Your task to perform on an android device: Check the settings for the Instagram app Image 0: 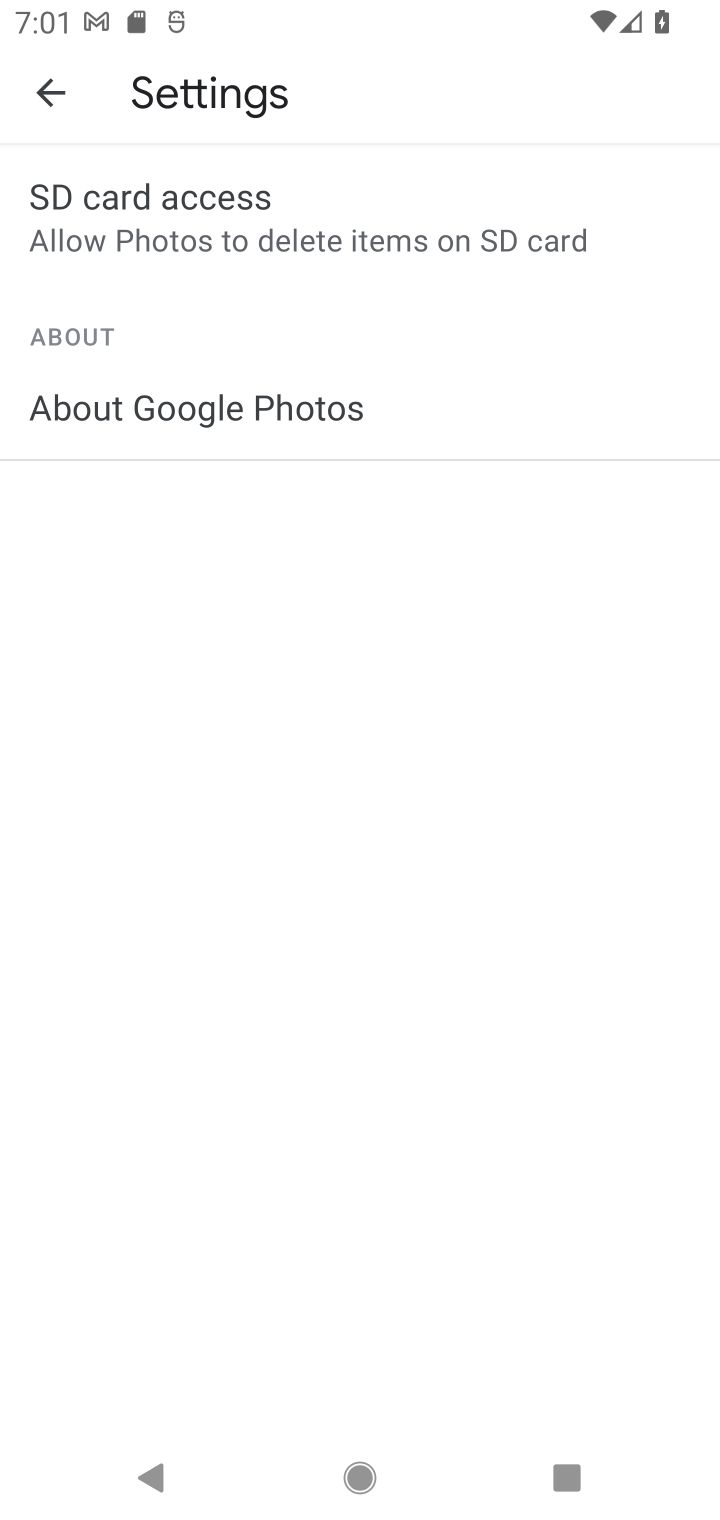
Step 0: press home button
Your task to perform on an android device: Check the settings for the Instagram app Image 1: 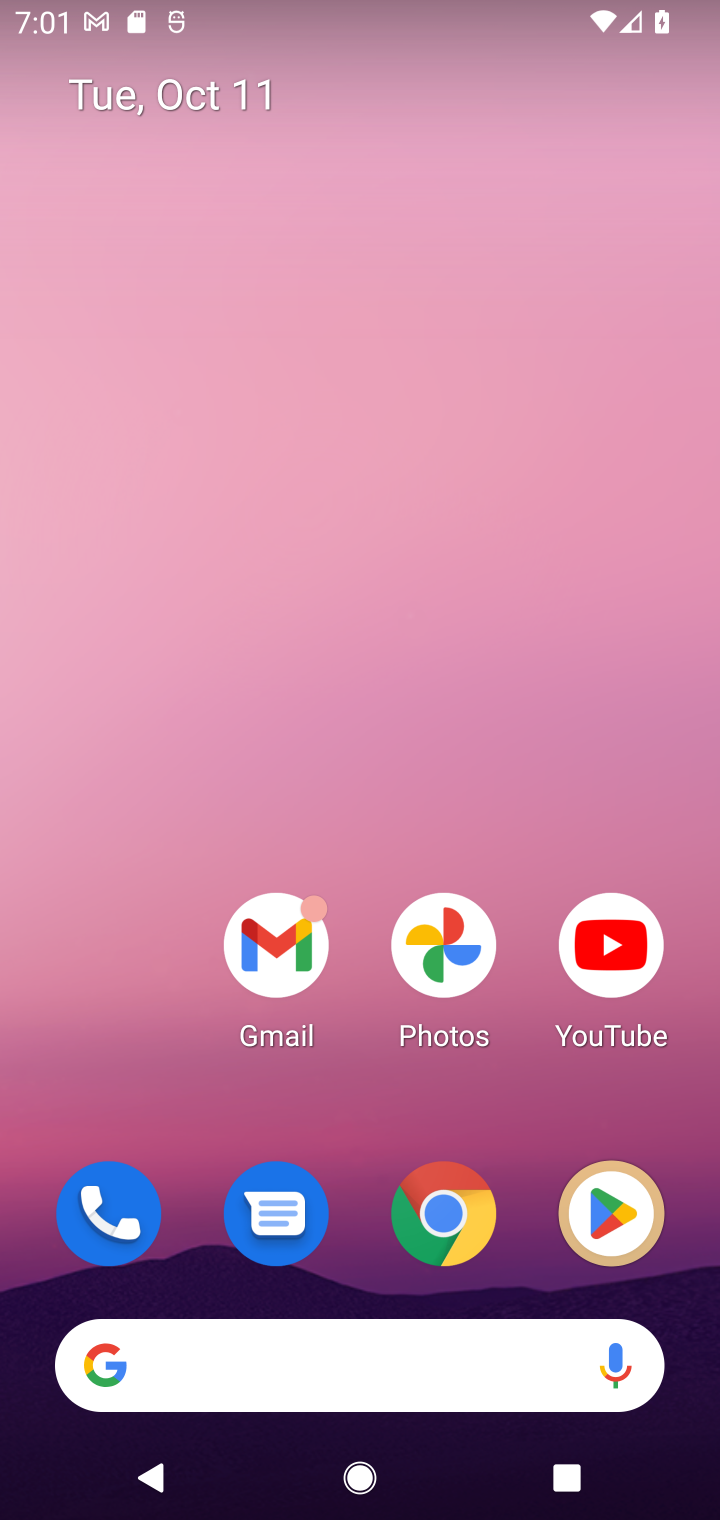
Step 1: drag from (344, 711) to (344, 408)
Your task to perform on an android device: Check the settings for the Instagram app Image 2: 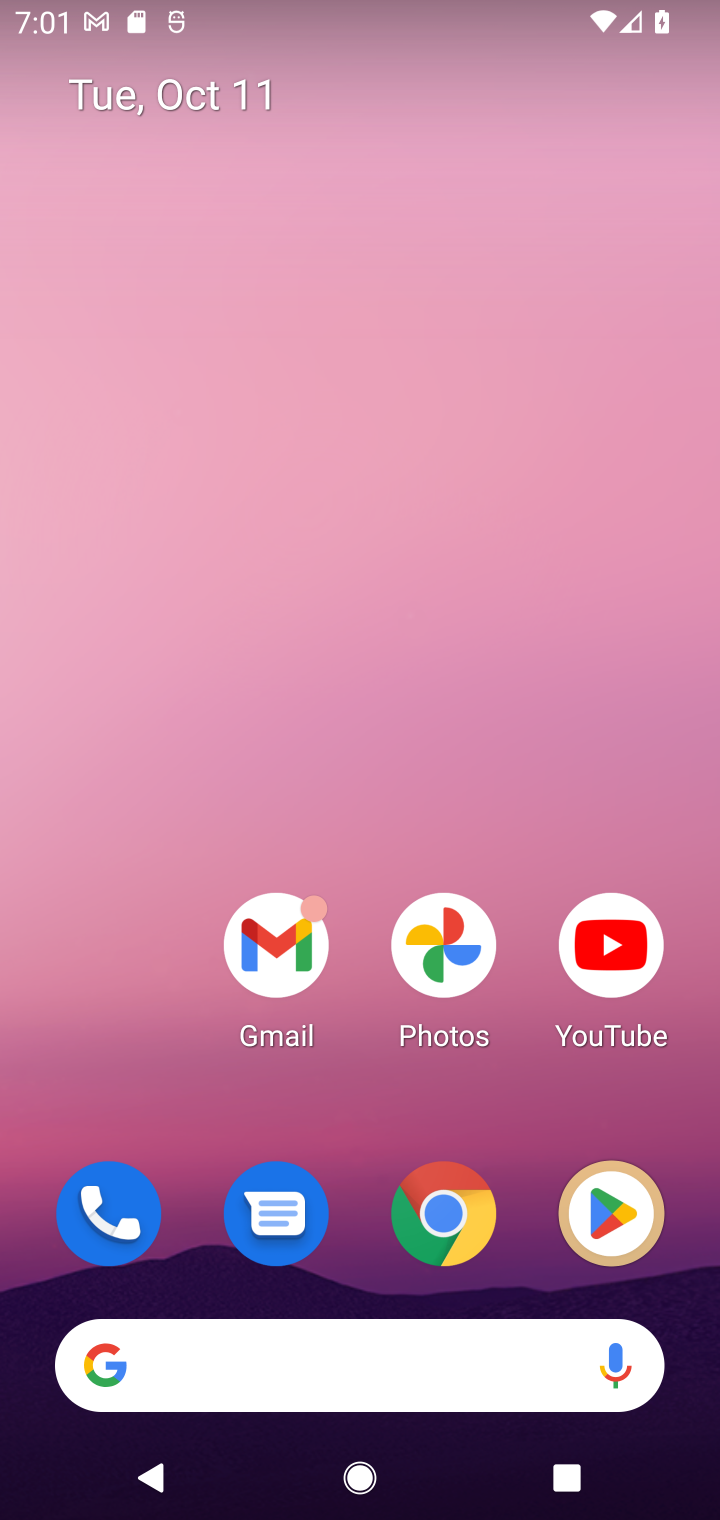
Step 2: drag from (392, 452) to (385, 341)
Your task to perform on an android device: Check the settings for the Instagram app Image 3: 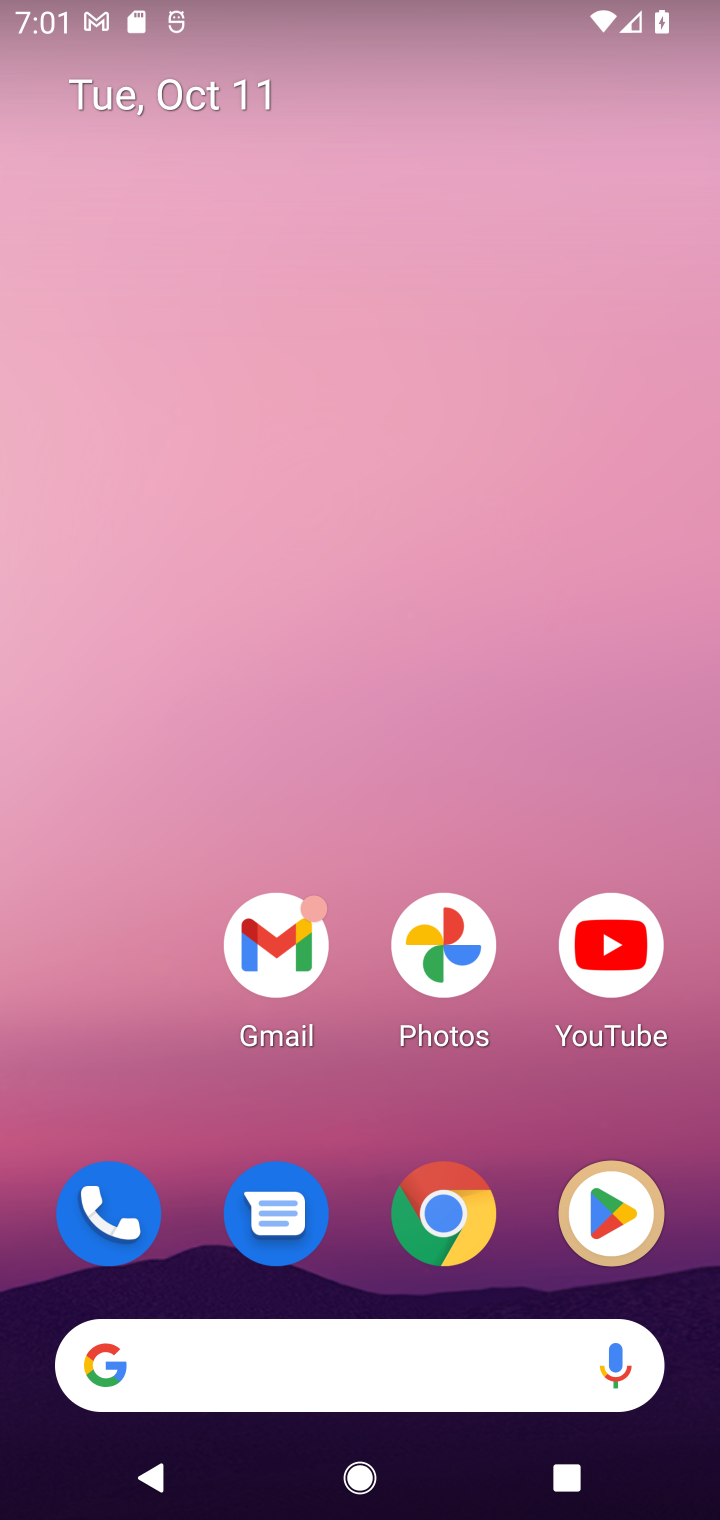
Step 3: drag from (338, 1026) to (420, 182)
Your task to perform on an android device: Check the settings for the Instagram app Image 4: 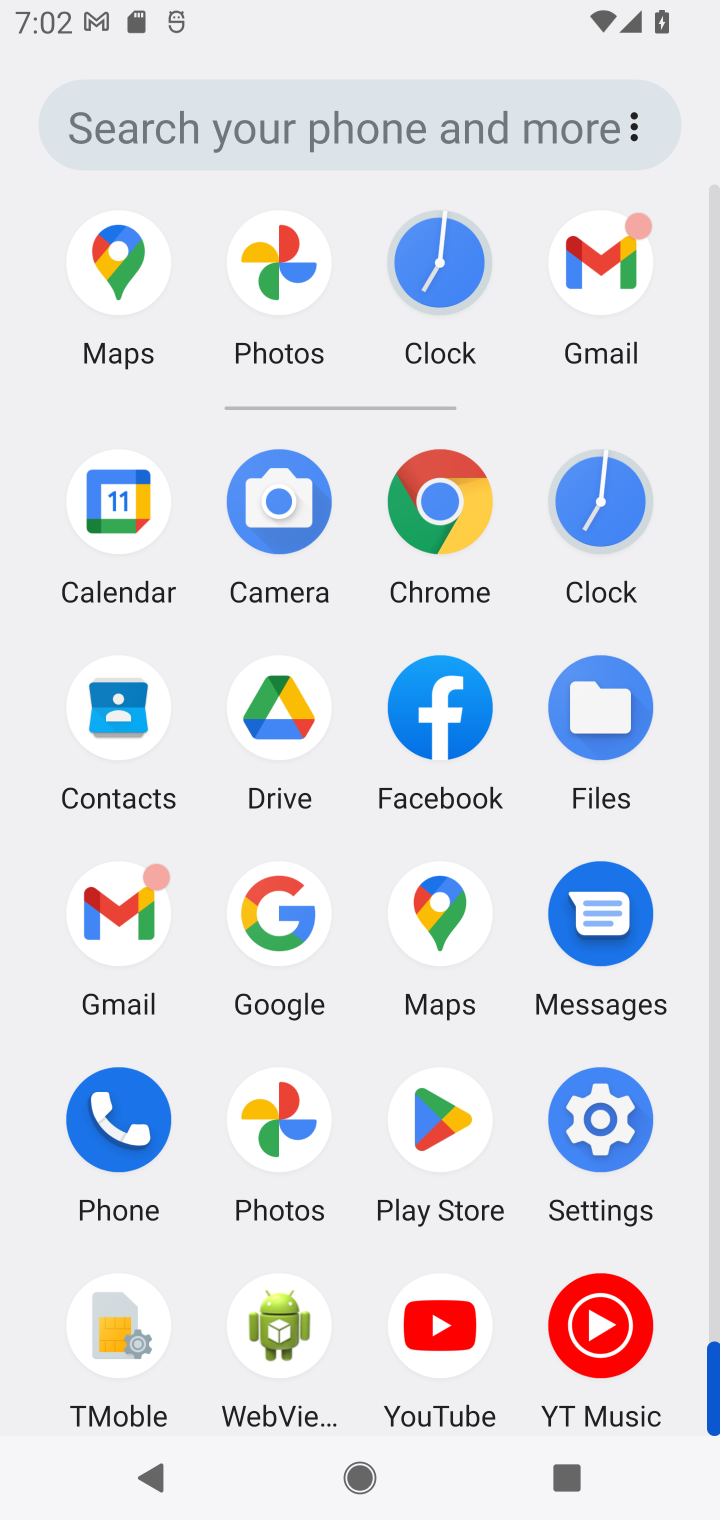
Step 4: drag from (257, 1209) to (281, 745)
Your task to perform on an android device: Check the settings for the Instagram app Image 5: 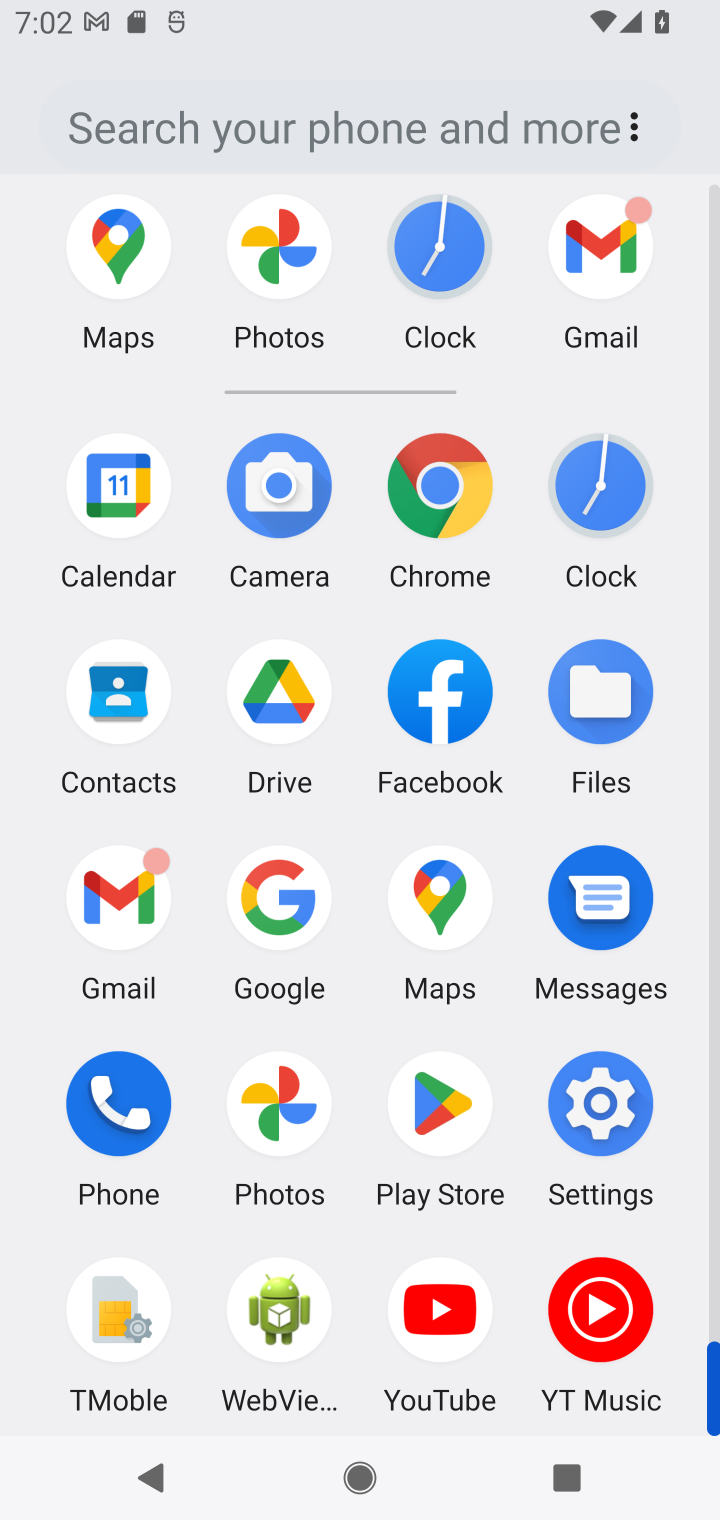
Step 5: drag from (149, 1257) to (218, 424)
Your task to perform on an android device: Check the settings for the Instagram app Image 6: 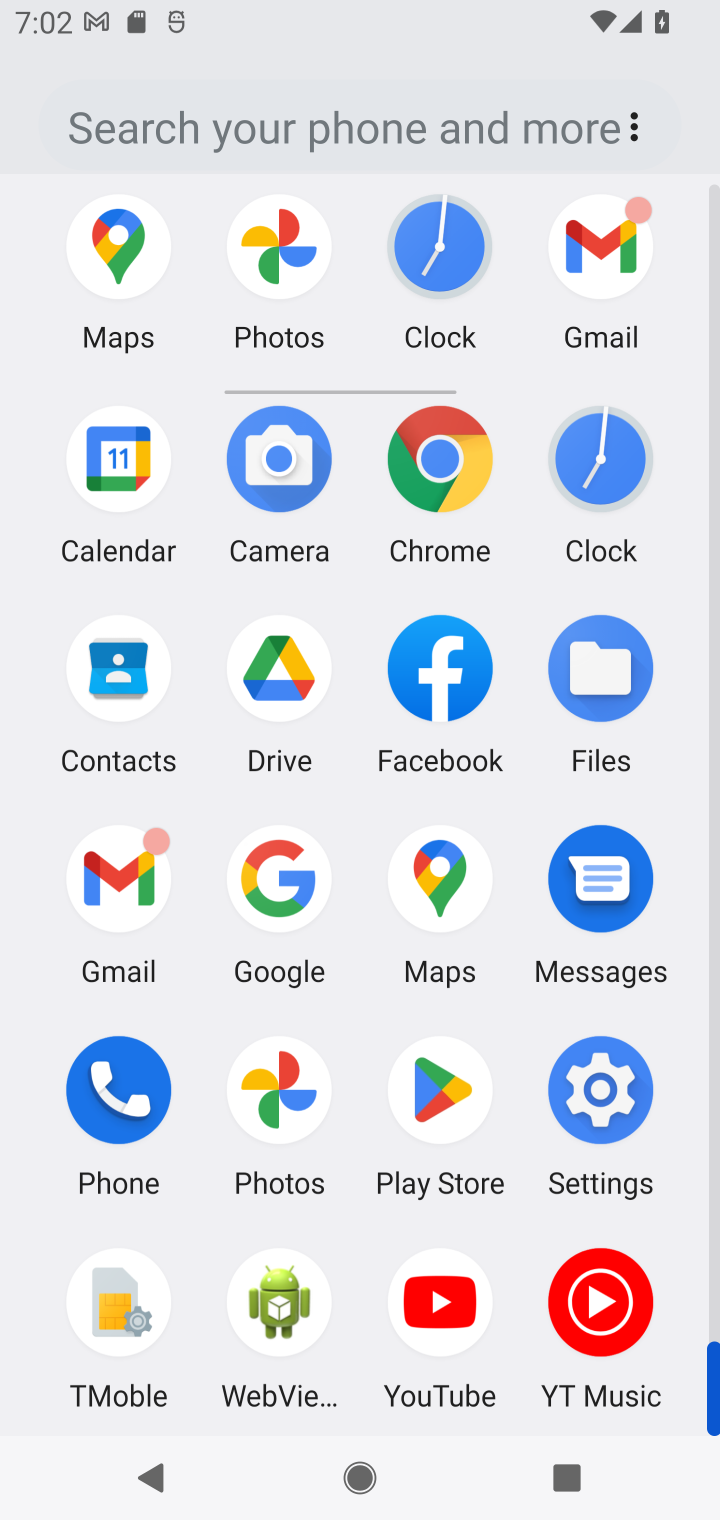
Step 6: drag from (205, 448) to (194, 1450)
Your task to perform on an android device: Check the settings for the Instagram app Image 7: 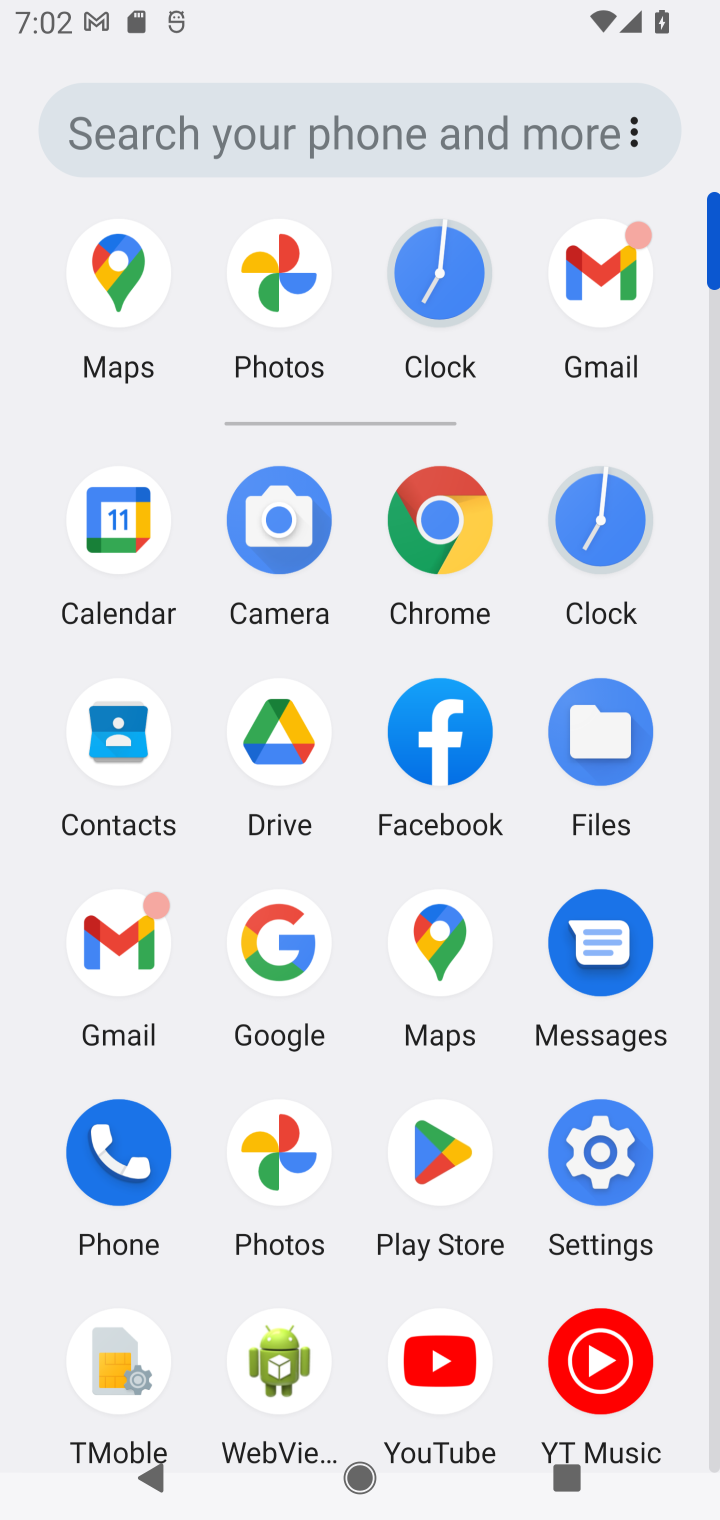
Step 7: click (232, 362)
Your task to perform on an android device: Check the settings for the Instagram app Image 8: 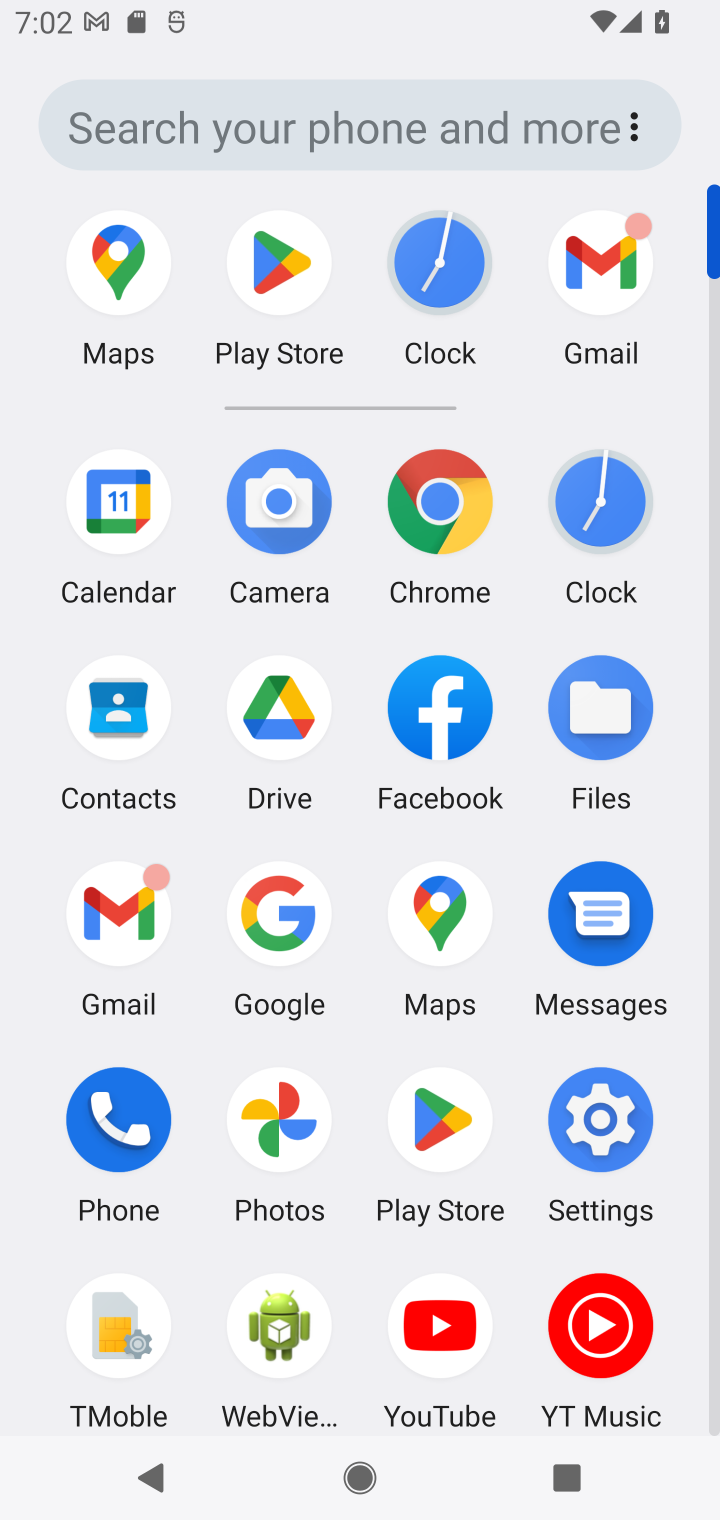
Step 8: click (454, 1100)
Your task to perform on an android device: Check the settings for the Instagram app Image 9: 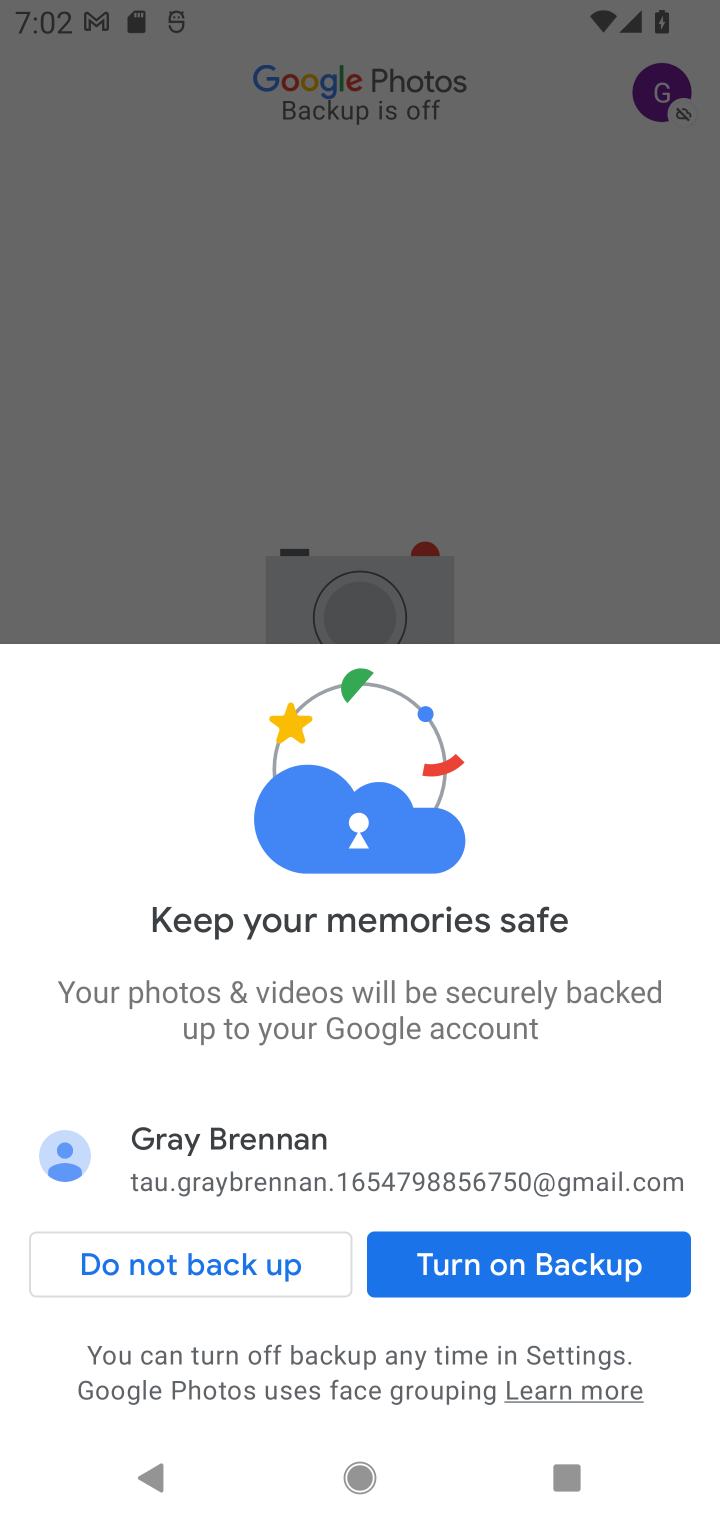
Step 9: press home button
Your task to perform on an android device: Check the settings for the Instagram app Image 10: 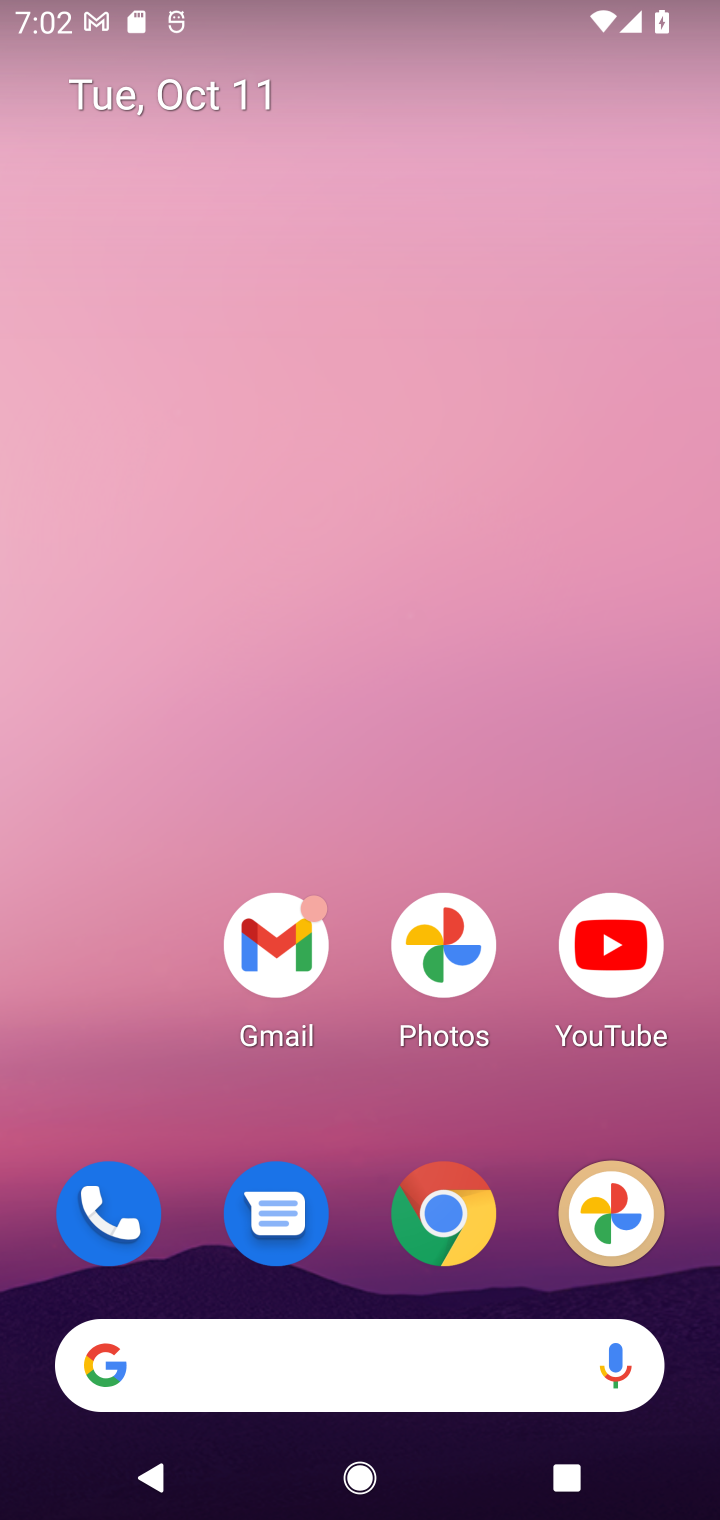
Step 10: drag from (288, 586) to (297, 280)
Your task to perform on an android device: Check the settings for the Instagram app Image 11: 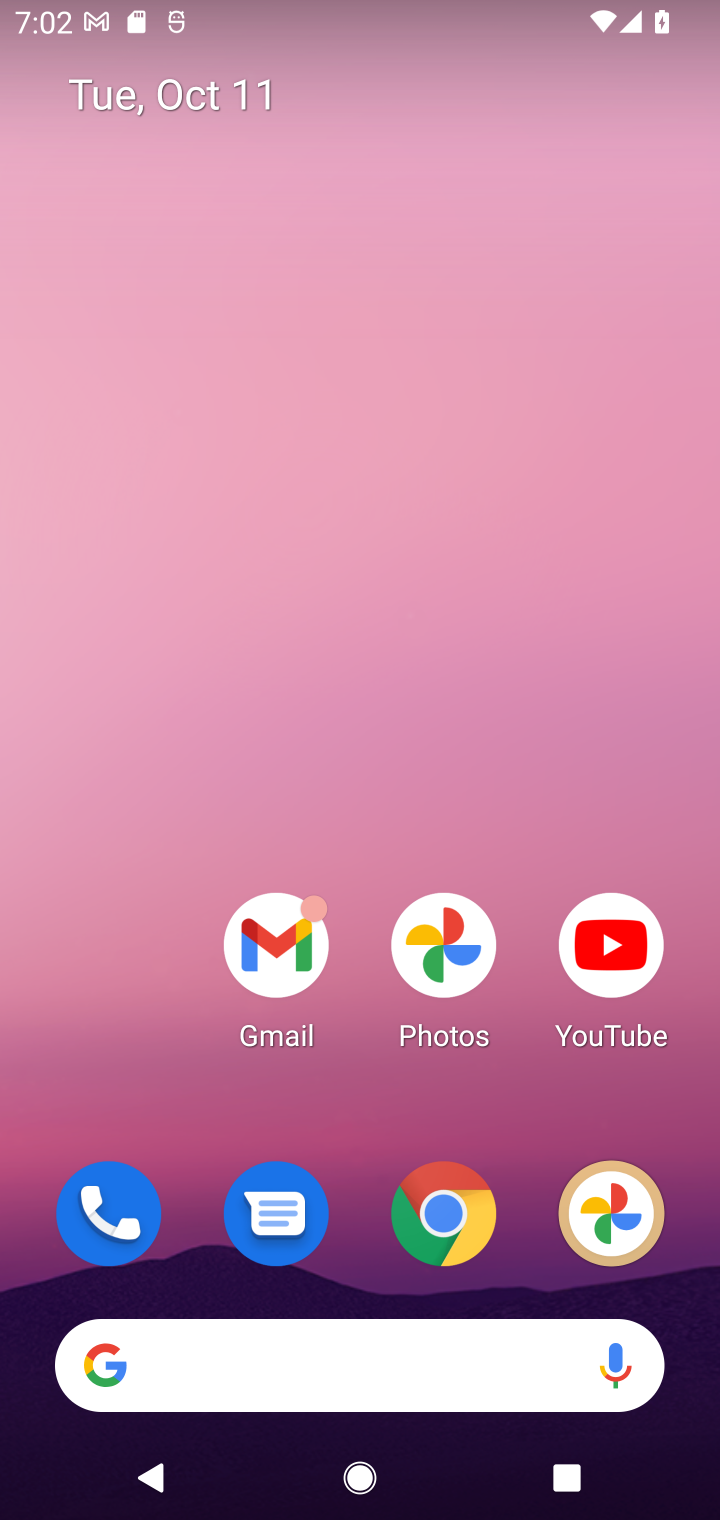
Step 11: drag from (362, 812) to (326, 260)
Your task to perform on an android device: Check the settings for the Instagram app Image 12: 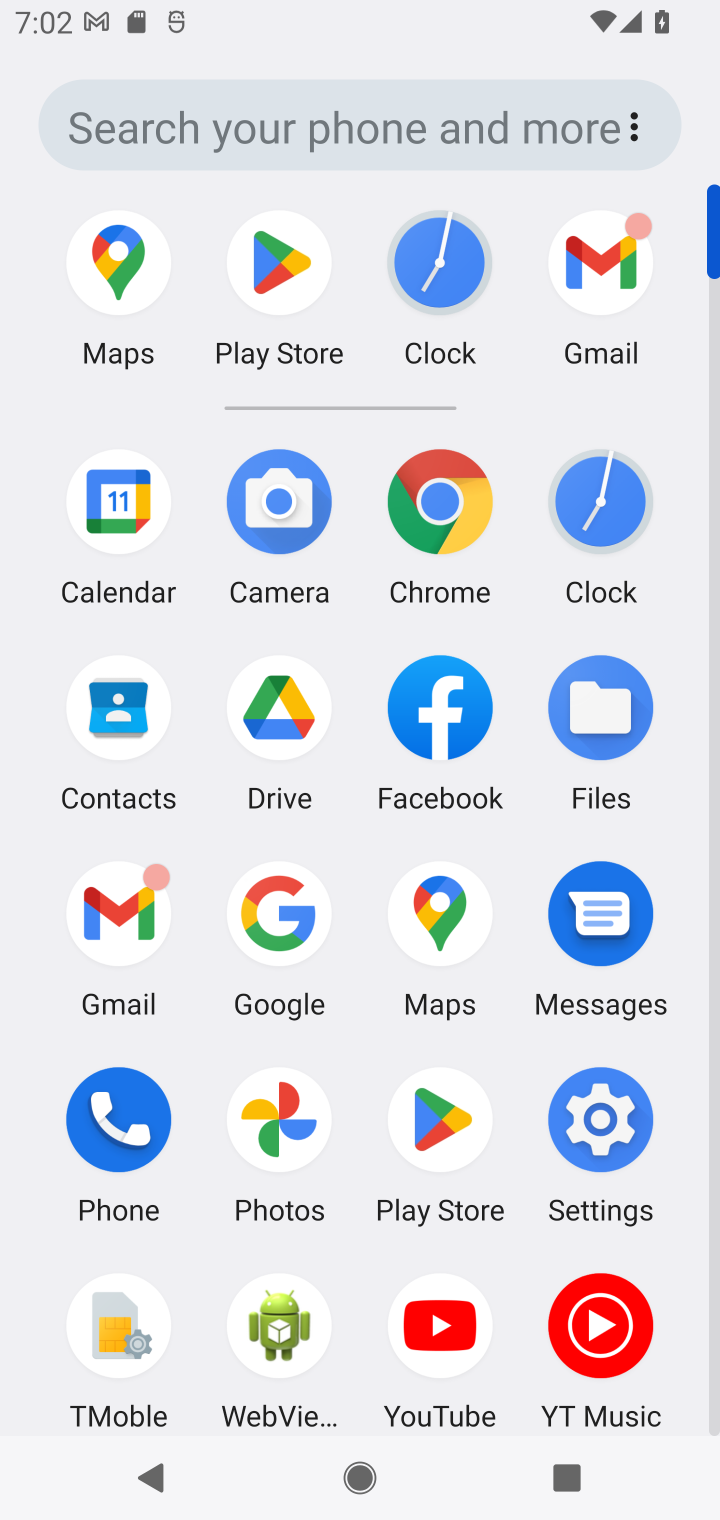
Step 12: click (453, 1103)
Your task to perform on an android device: Check the settings for the Instagram app Image 13: 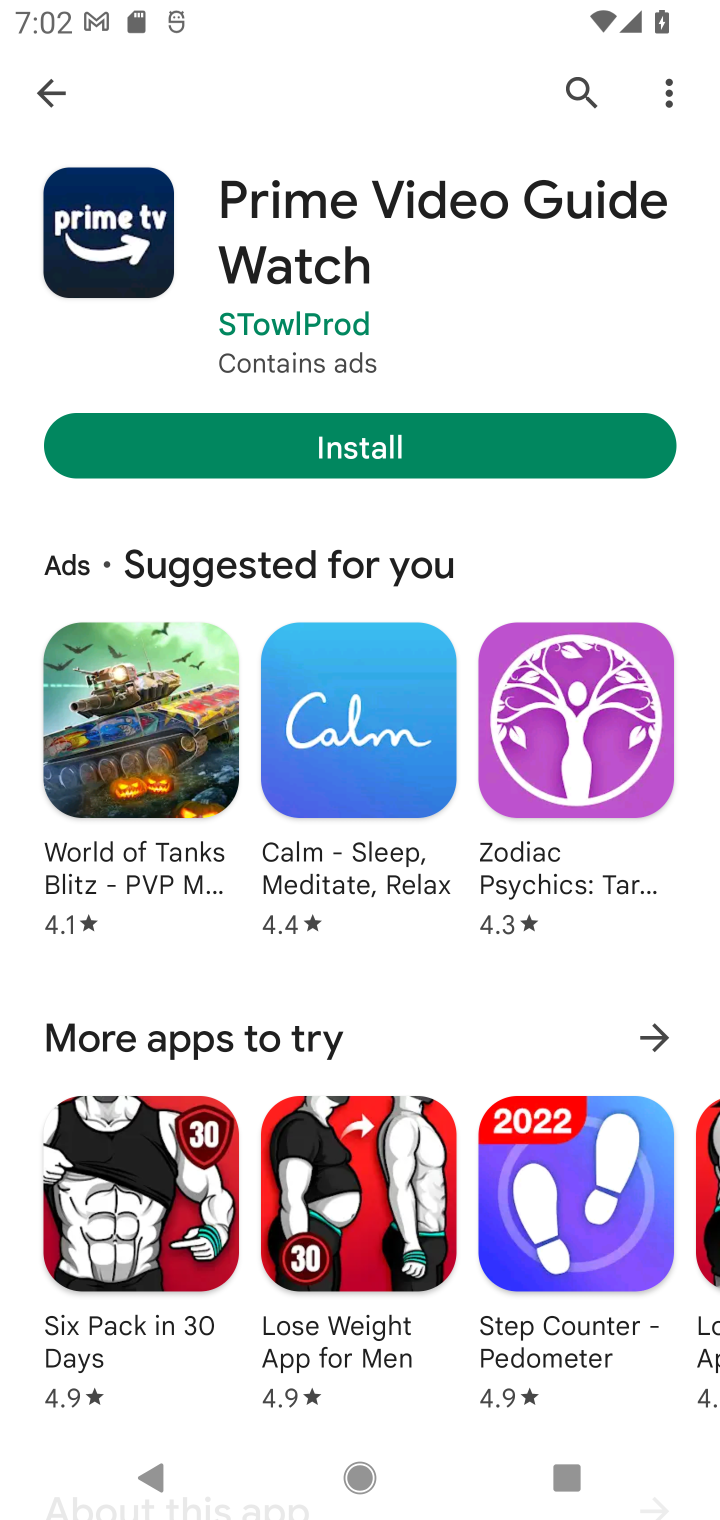
Step 13: click (27, 94)
Your task to perform on an android device: Check the settings for the Instagram app Image 14: 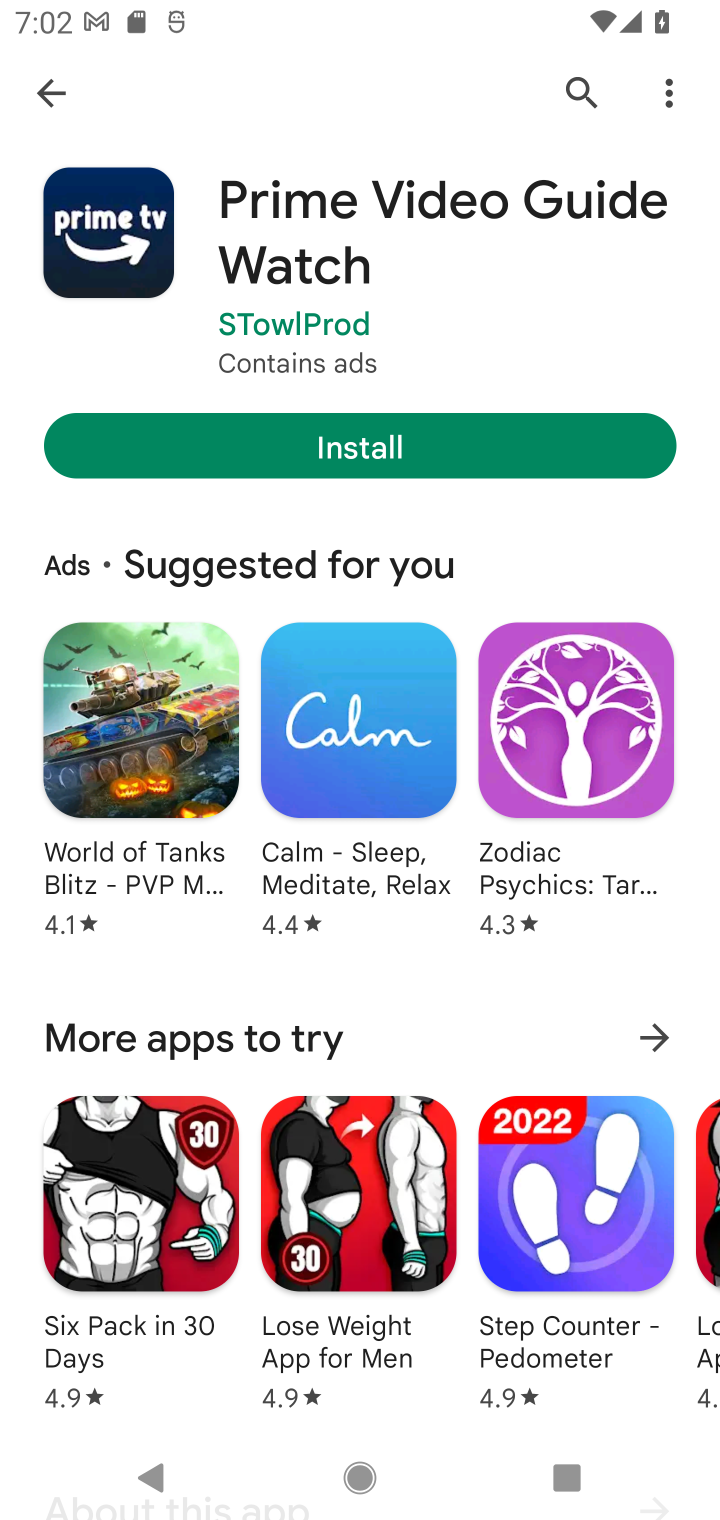
Step 14: click (54, 90)
Your task to perform on an android device: Check the settings for the Instagram app Image 15: 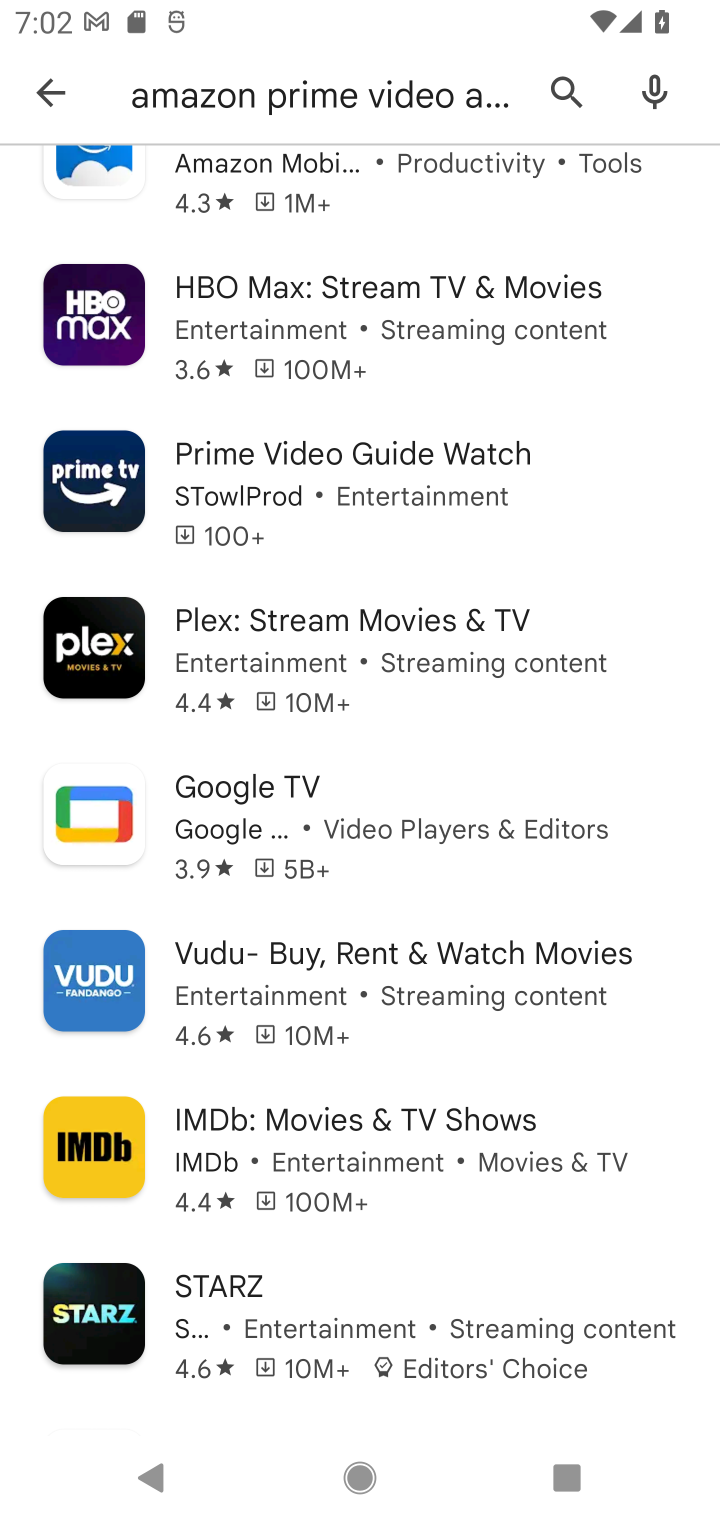
Step 15: click (555, 80)
Your task to perform on an android device: Check the settings for the Instagram app Image 16: 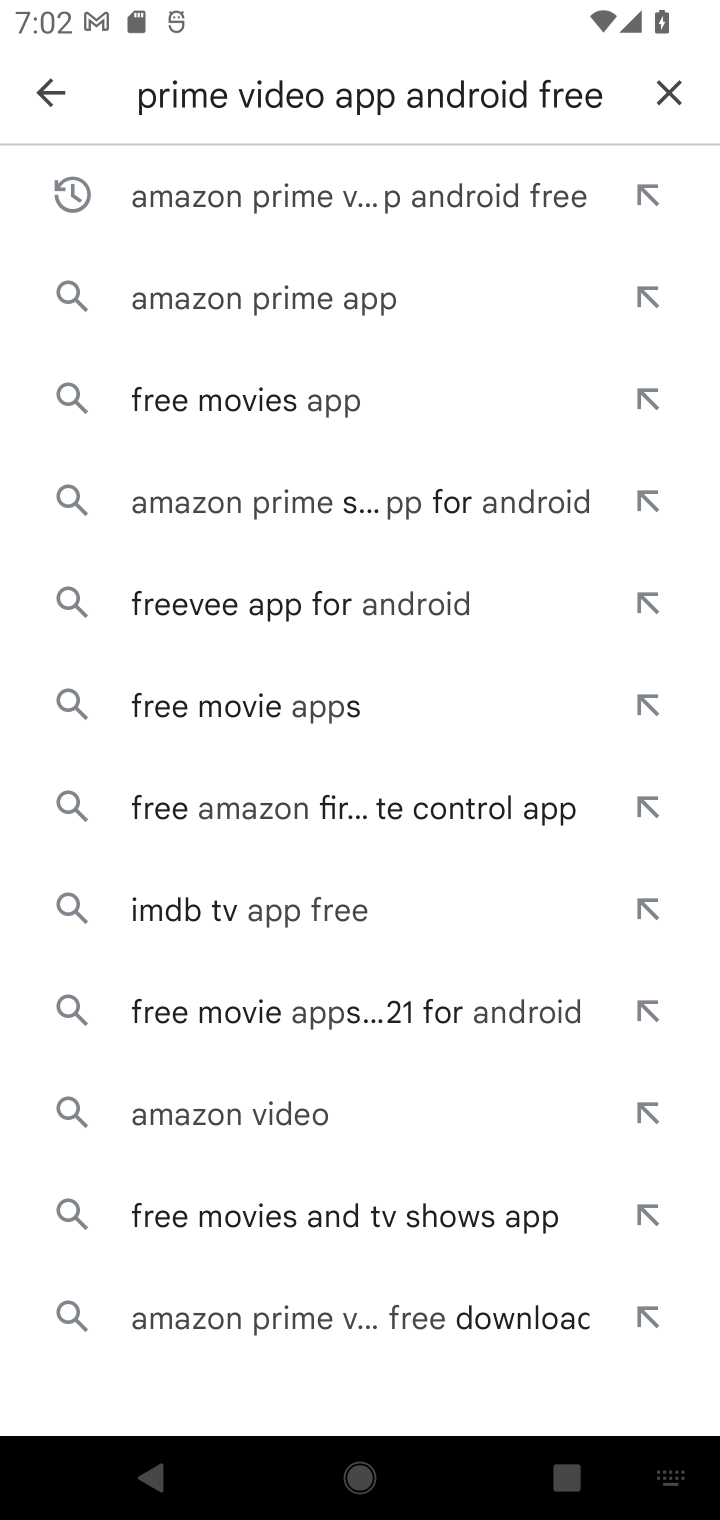
Step 16: click (664, 85)
Your task to perform on an android device: Check the settings for the Instagram app Image 17: 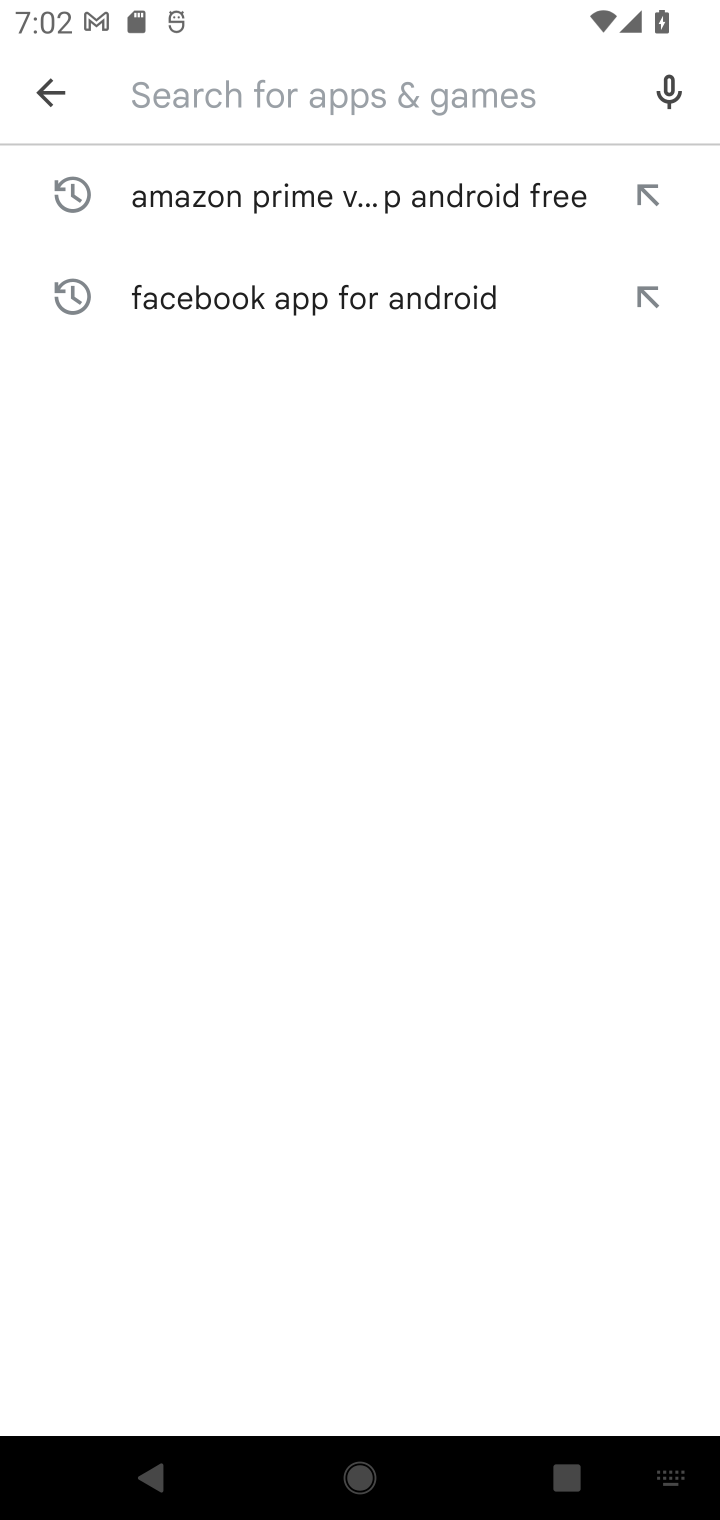
Step 17: click (332, 100)
Your task to perform on an android device: Check the settings for the Instagram app Image 18: 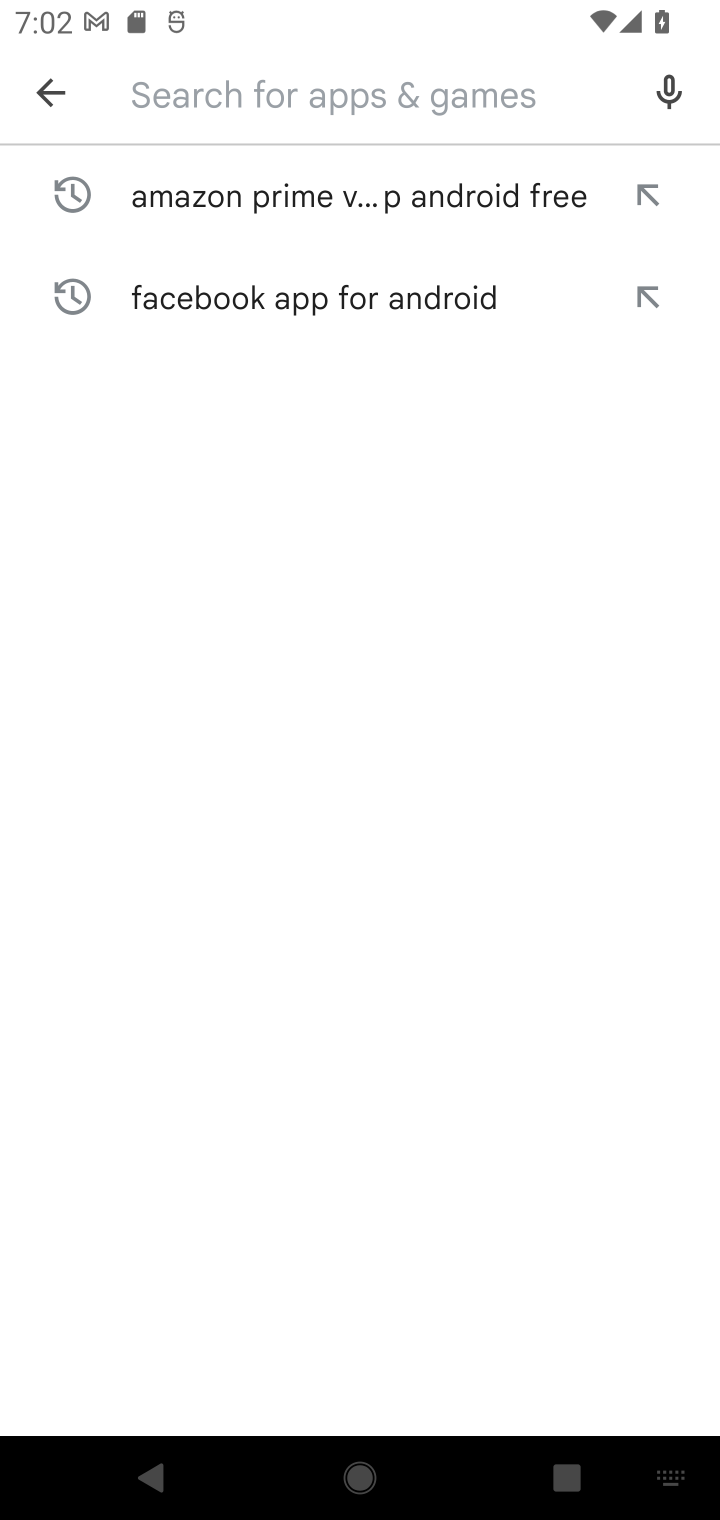
Step 18: type "instagram "
Your task to perform on an android device: Check the settings for the Instagram app Image 19: 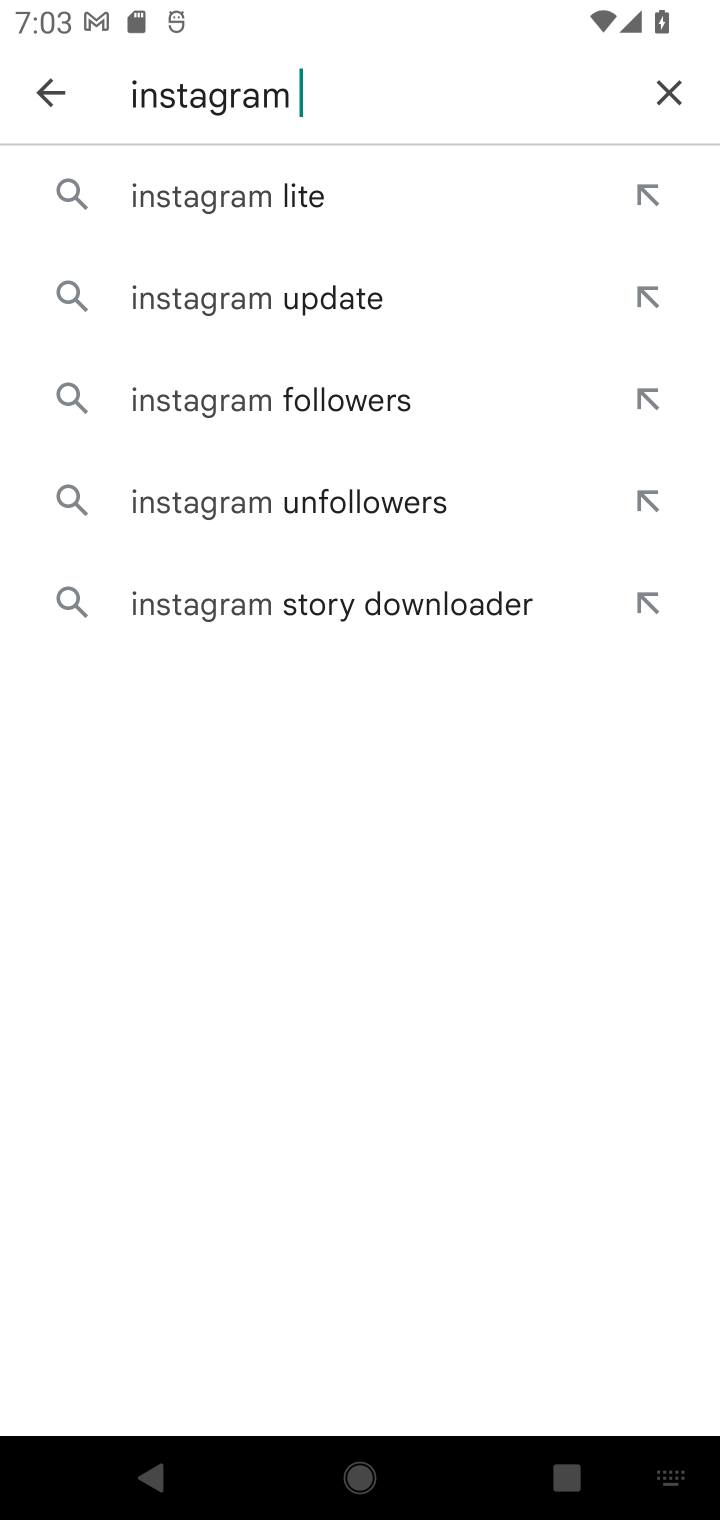
Step 19: click (239, 206)
Your task to perform on an android device: Check the settings for the Instagram app Image 20: 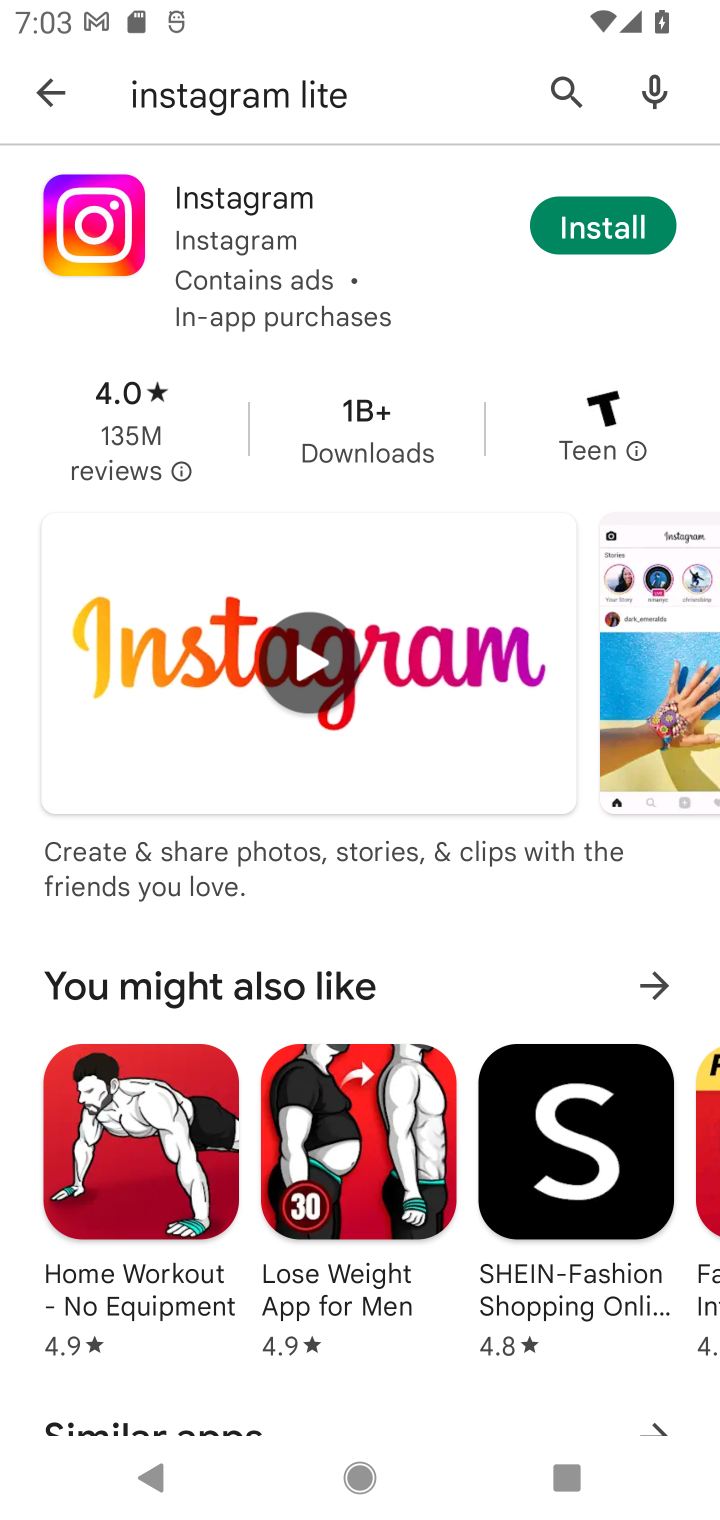
Step 20: click (595, 229)
Your task to perform on an android device: Check the settings for the Instagram app Image 21: 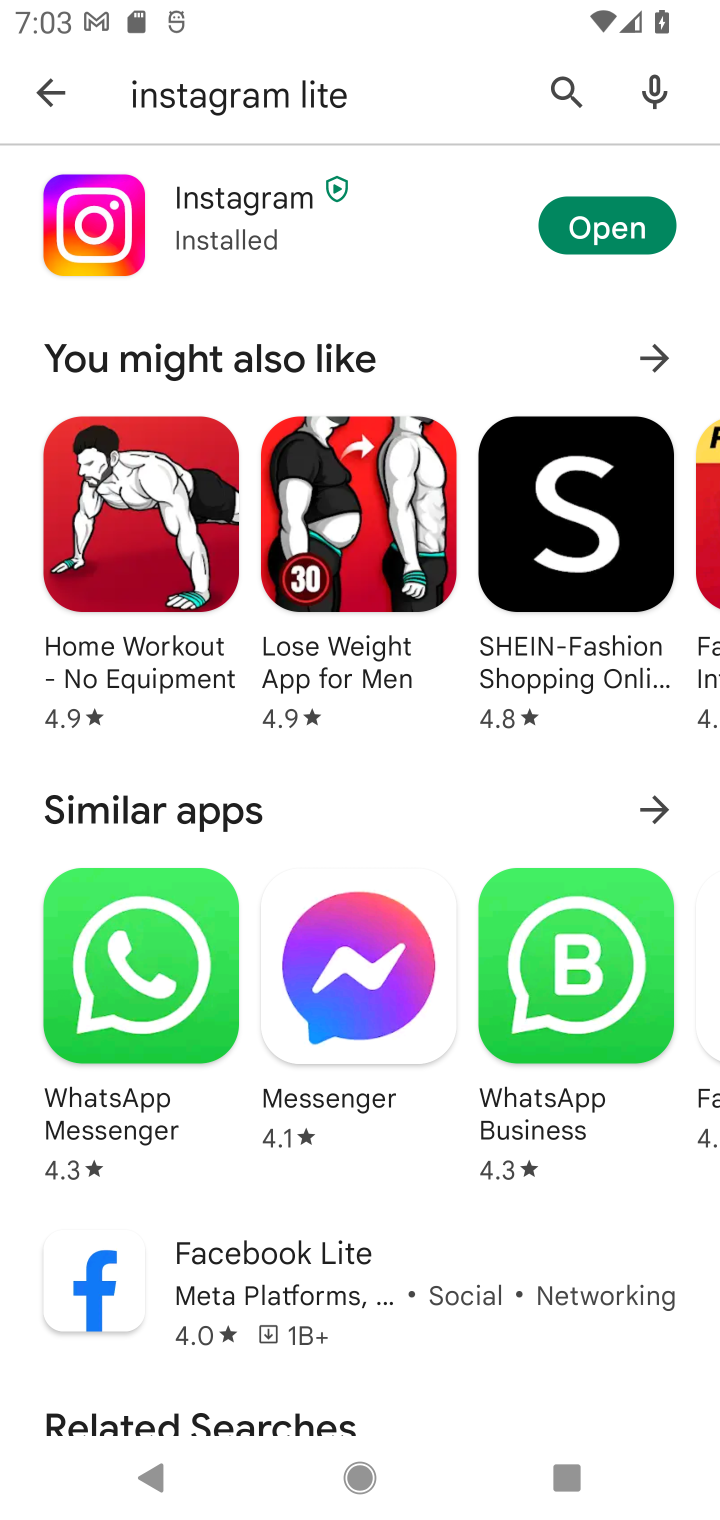
Step 21: click (576, 218)
Your task to perform on an android device: Check the settings for the Instagram app Image 22: 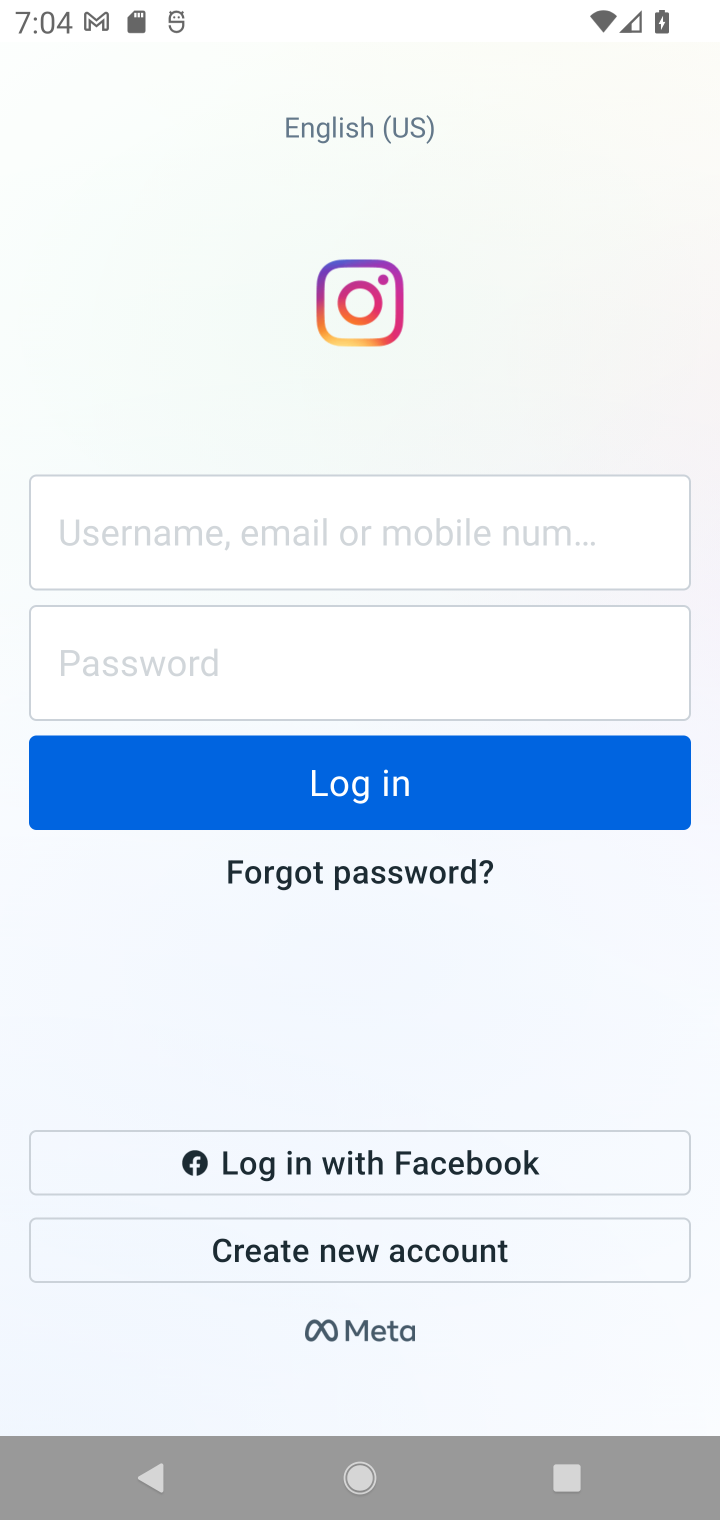
Step 22: task complete